Your task to perform on an android device: empty trash in google photos Image 0: 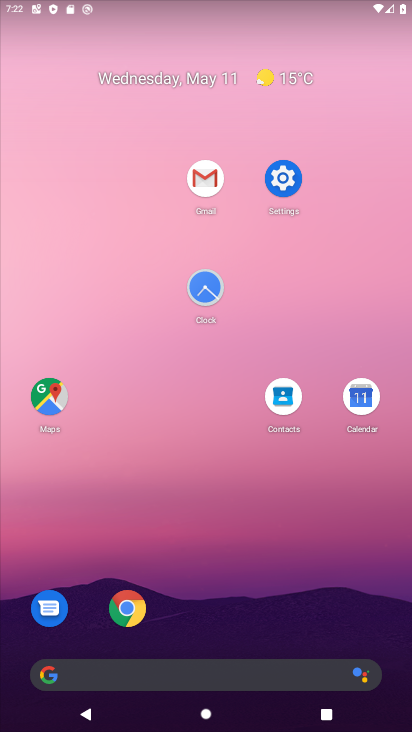
Step 0: drag from (242, 572) to (216, 201)
Your task to perform on an android device: empty trash in google photos Image 1: 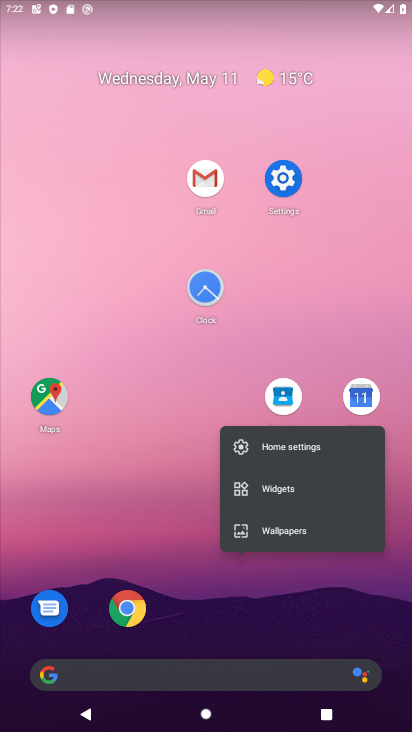
Step 1: click (131, 505)
Your task to perform on an android device: empty trash in google photos Image 2: 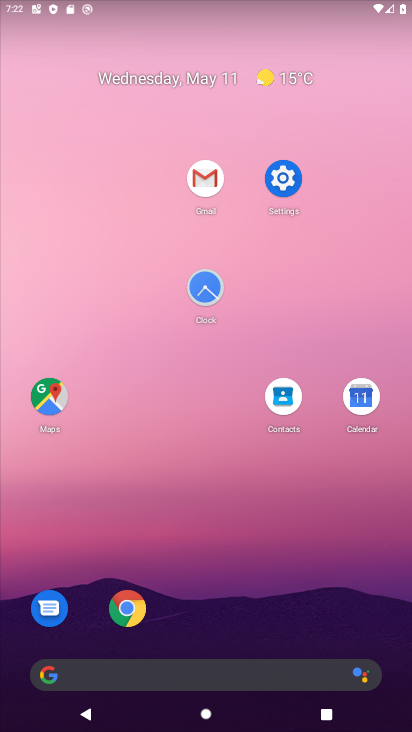
Step 2: drag from (193, 547) to (169, 149)
Your task to perform on an android device: empty trash in google photos Image 3: 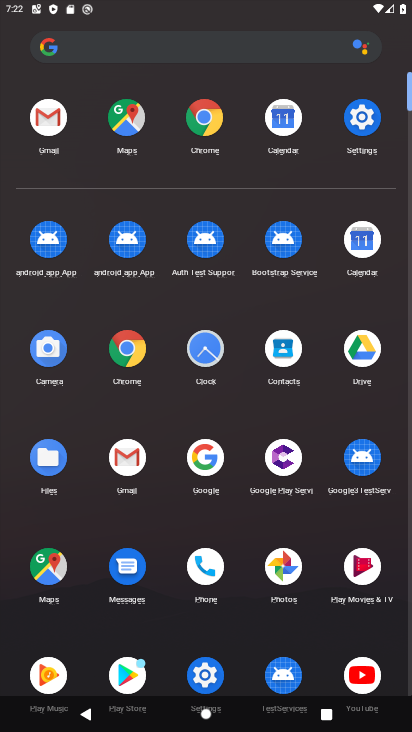
Step 3: click (278, 589)
Your task to perform on an android device: empty trash in google photos Image 4: 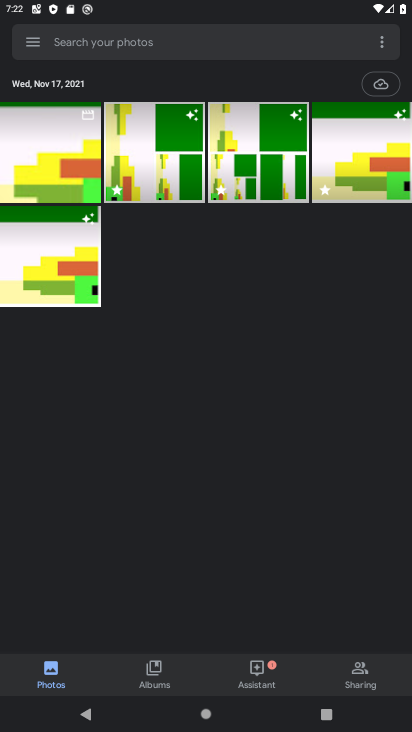
Step 4: click (35, 51)
Your task to perform on an android device: empty trash in google photos Image 5: 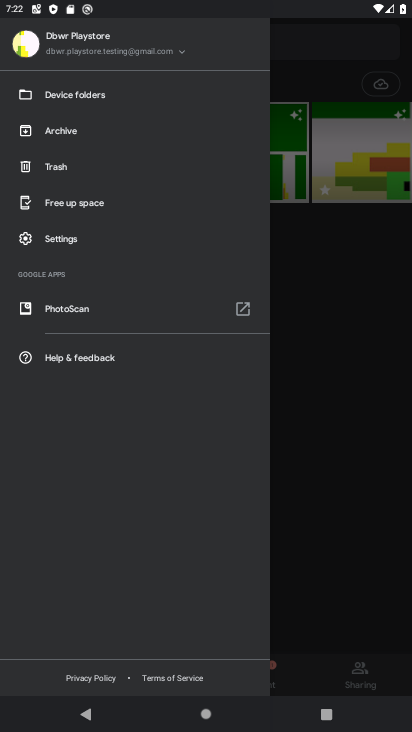
Step 5: click (123, 167)
Your task to perform on an android device: empty trash in google photos Image 6: 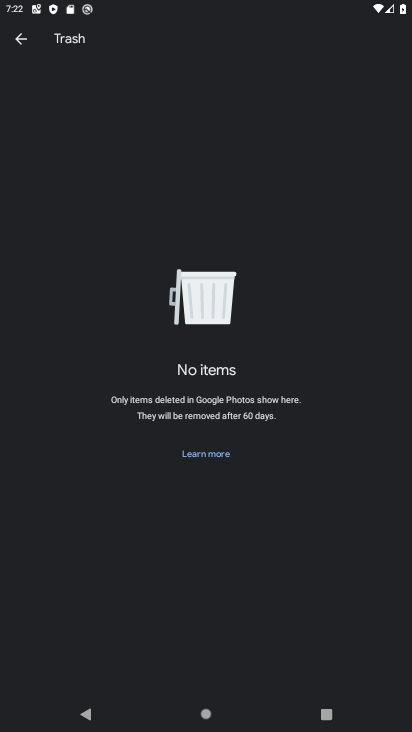
Step 6: task complete